Your task to perform on an android device: Clear the shopping cart on target. Image 0: 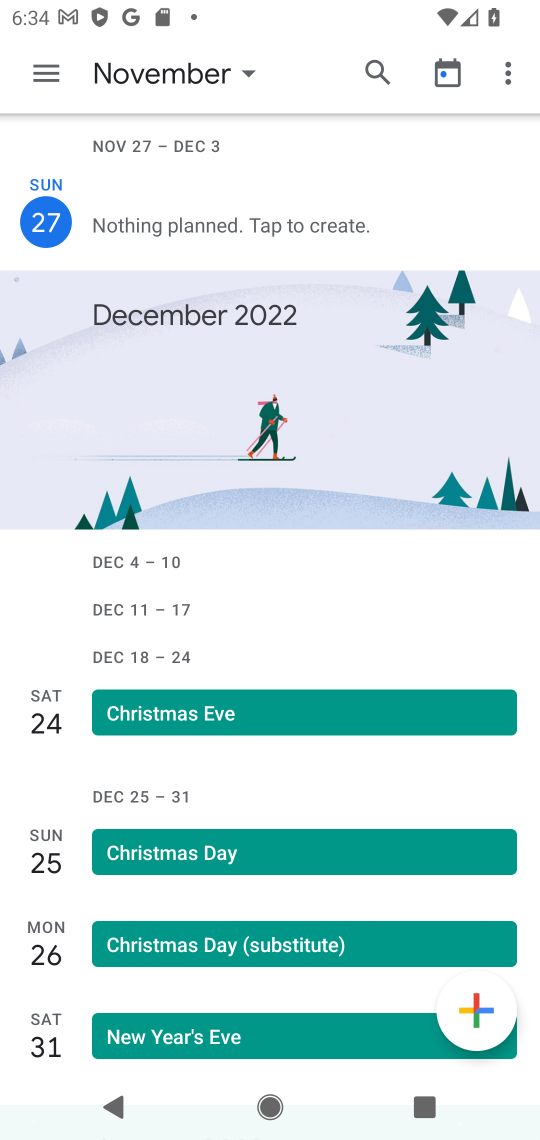
Step 0: press home button
Your task to perform on an android device: Clear the shopping cart on target. Image 1: 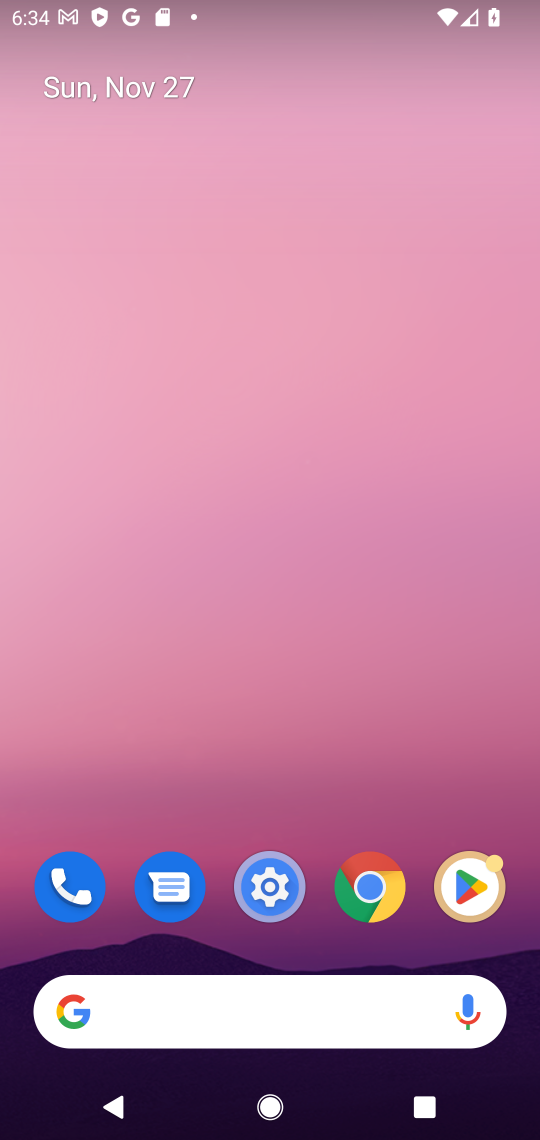
Step 1: click (277, 1016)
Your task to perform on an android device: Clear the shopping cart on target. Image 2: 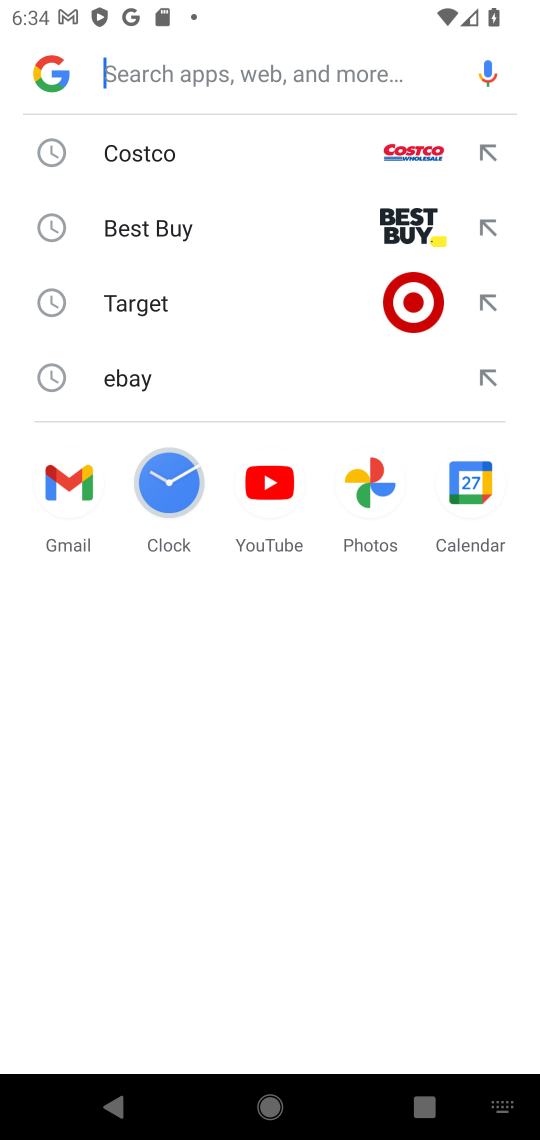
Step 2: type "target"
Your task to perform on an android device: Clear the shopping cart on target. Image 3: 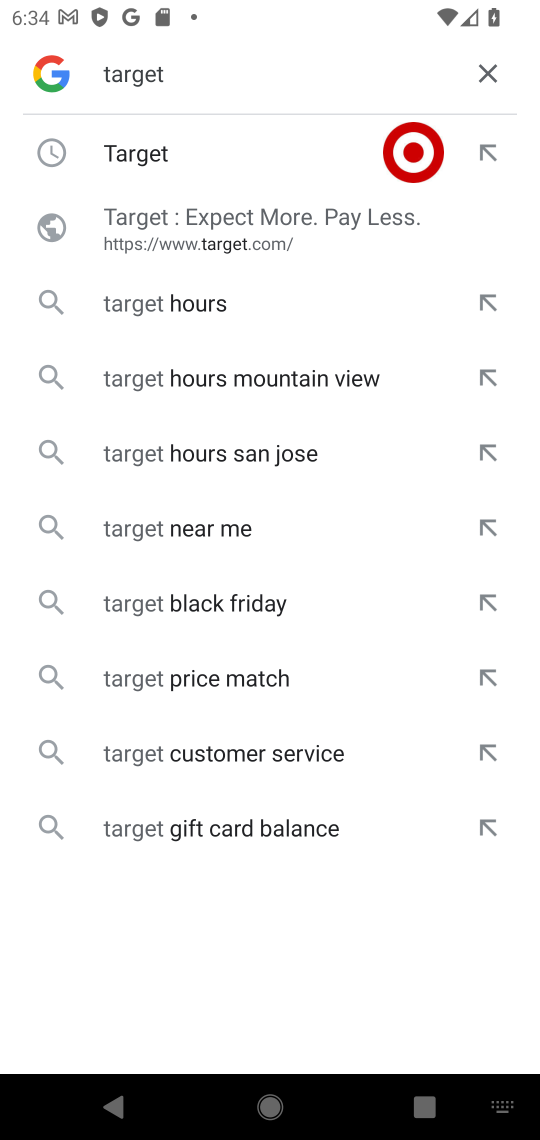
Step 3: click (318, 169)
Your task to perform on an android device: Clear the shopping cart on target. Image 4: 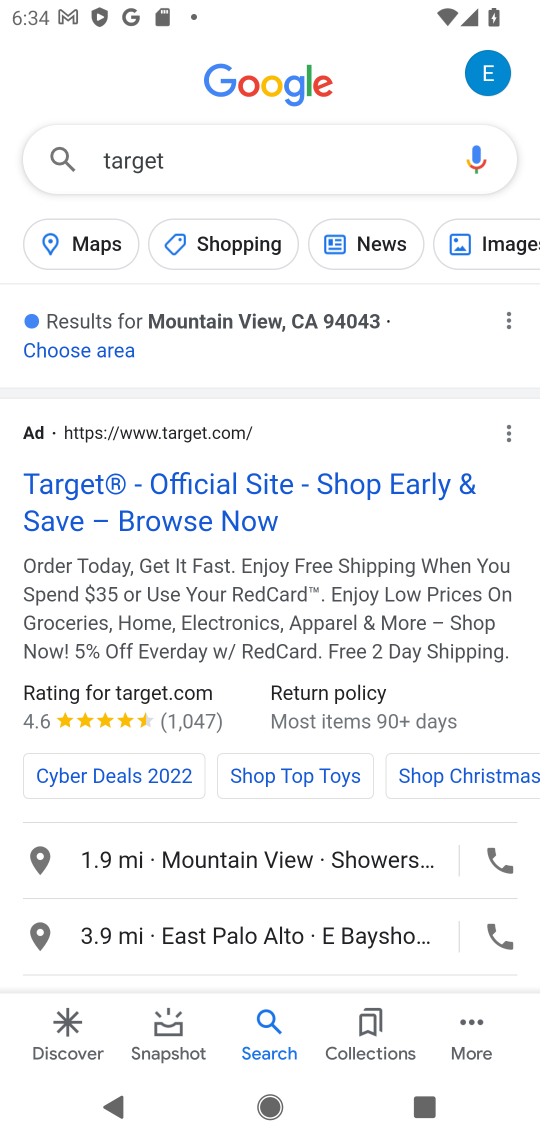
Step 4: click (311, 482)
Your task to perform on an android device: Clear the shopping cart on target. Image 5: 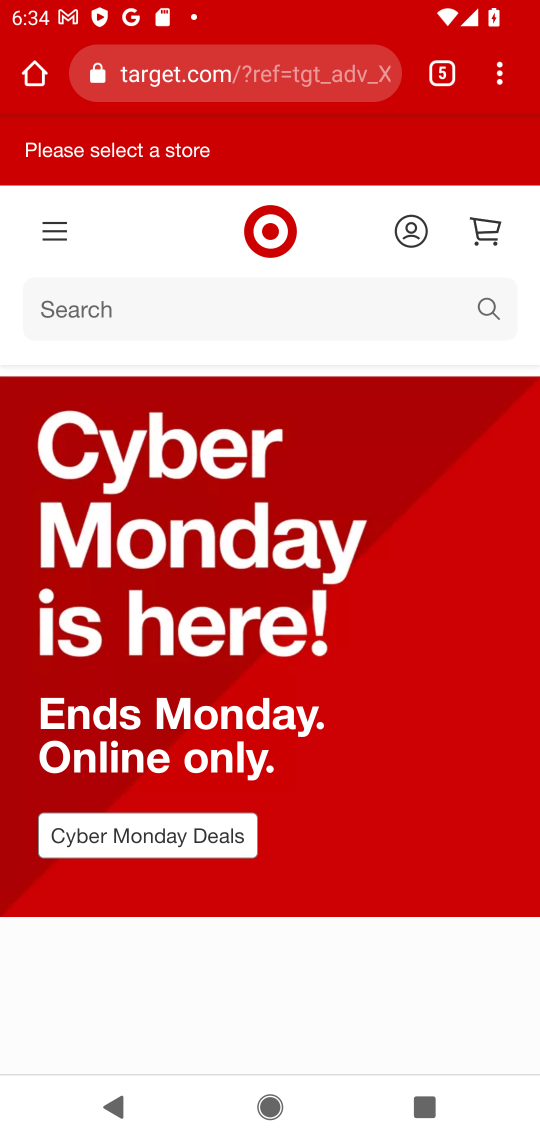
Step 5: click (210, 310)
Your task to perform on an android device: Clear the shopping cart on target. Image 6: 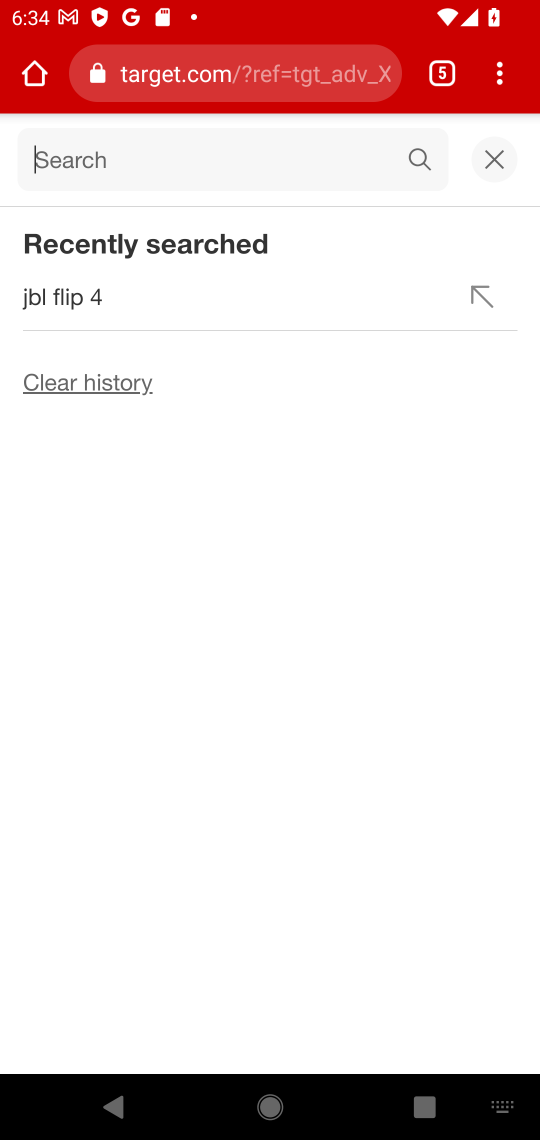
Step 6: click (483, 187)
Your task to perform on an android device: Clear the shopping cart on target. Image 7: 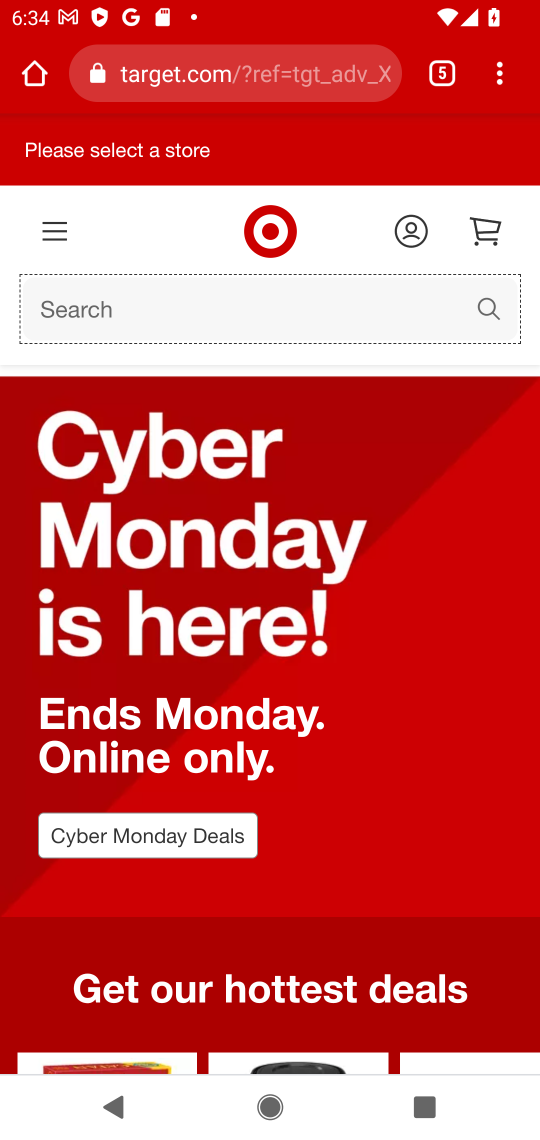
Step 7: click (470, 226)
Your task to perform on an android device: Clear the shopping cart on target. Image 8: 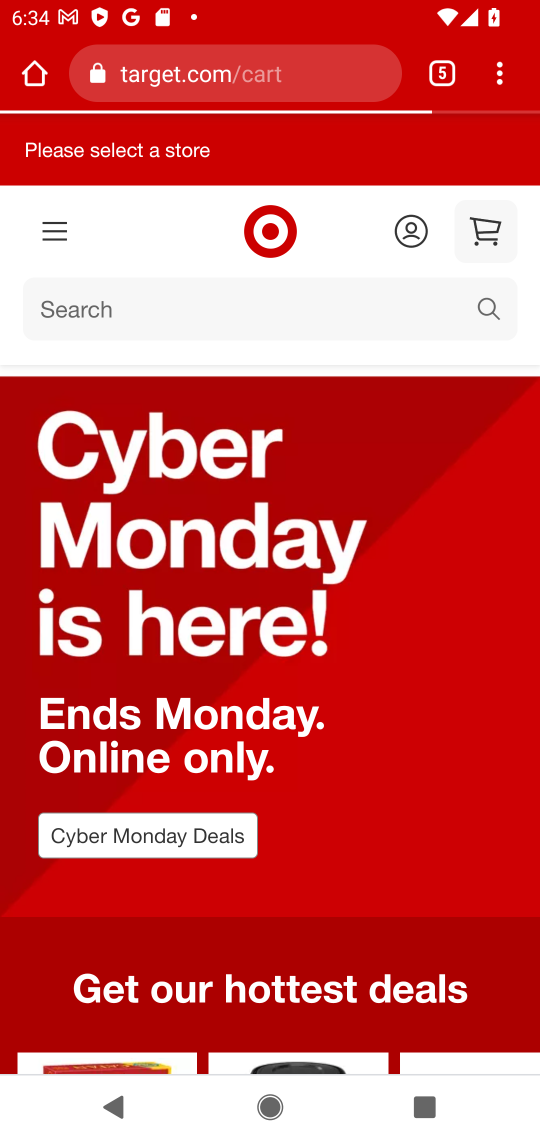
Step 8: task complete